Your task to perform on an android device: star an email in the gmail app Image 0: 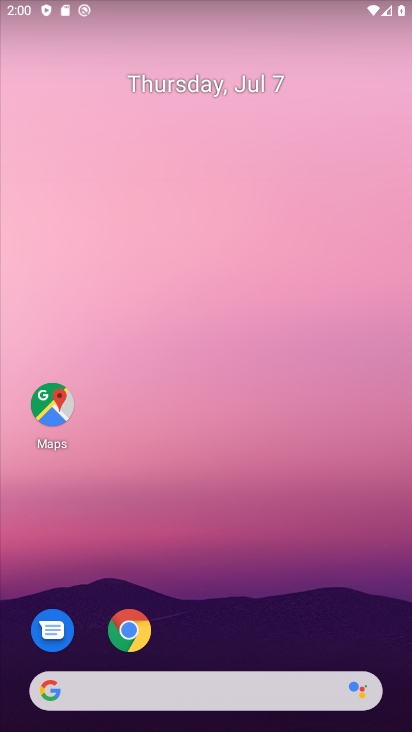
Step 0: drag from (213, 637) to (205, 305)
Your task to perform on an android device: star an email in the gmail app Image 1: 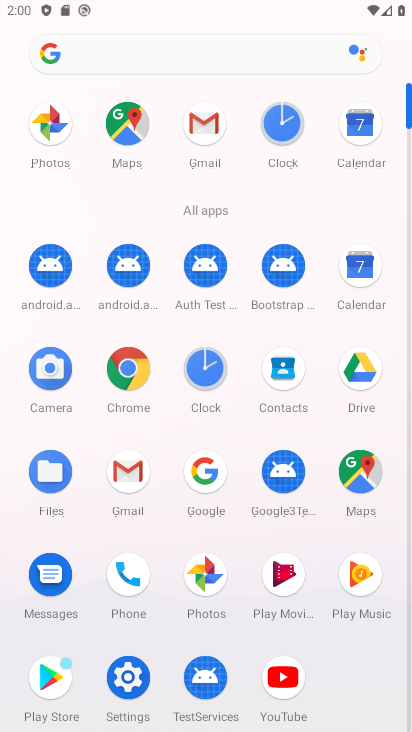
Step 1: click (206, 135)
Your task to perform on an android device: star an email in the gmail app Image 2: 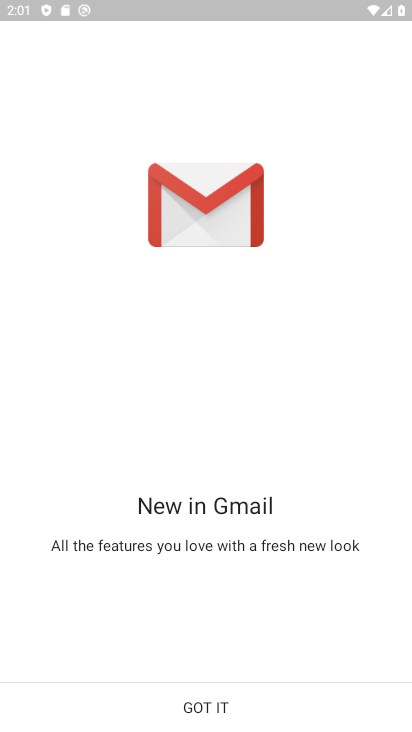
Step 2: click (214, 712)
Your task to perform on an android device: star an email in the gmail app Image 3: 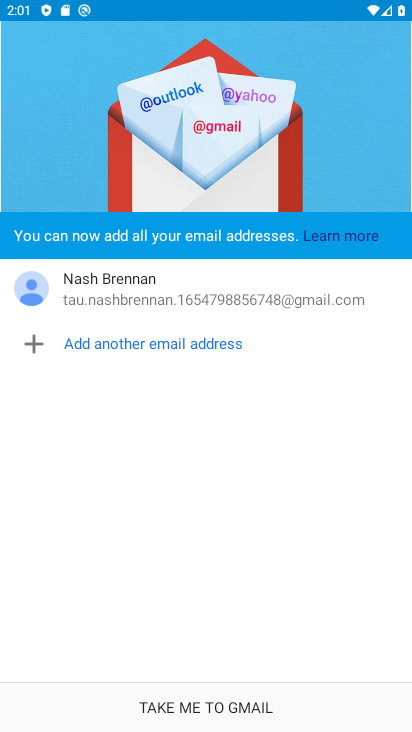
Step 3: click (211, 710)
Your task to perform on an android device: star an email in the gmail app Image 4: 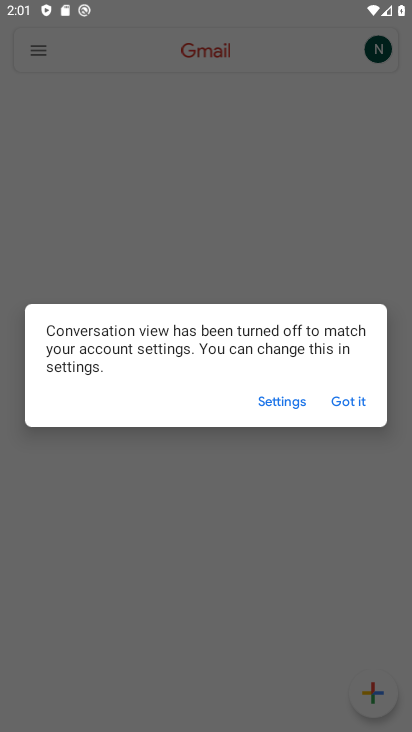
Step 4: click (351, 406)
Your task to perform on an android device: star an email in the gmail app Image 5: 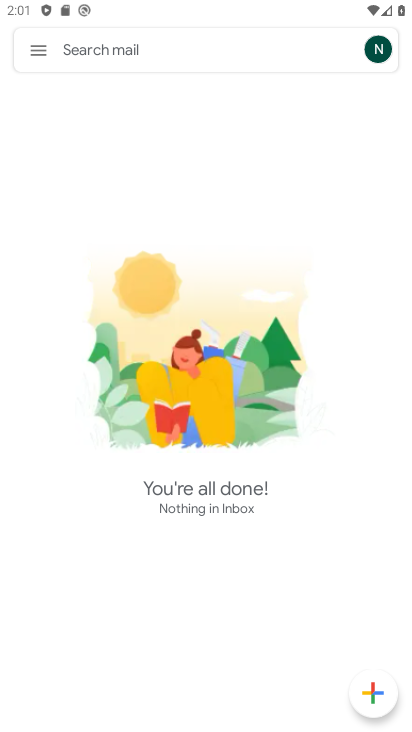
Step 5: task complete